Your task to perform on an android device: change the clock display to analog Image 0: 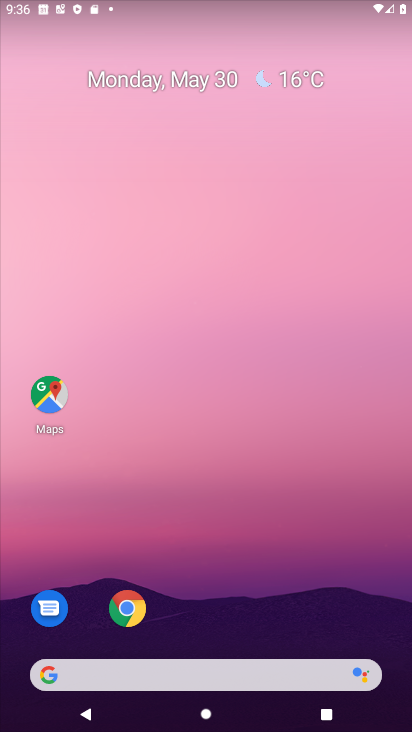
Step 0: drag from (401, 669) to (368, 149)
Your task to perform on an android device: change the clock display to analog Image 1: 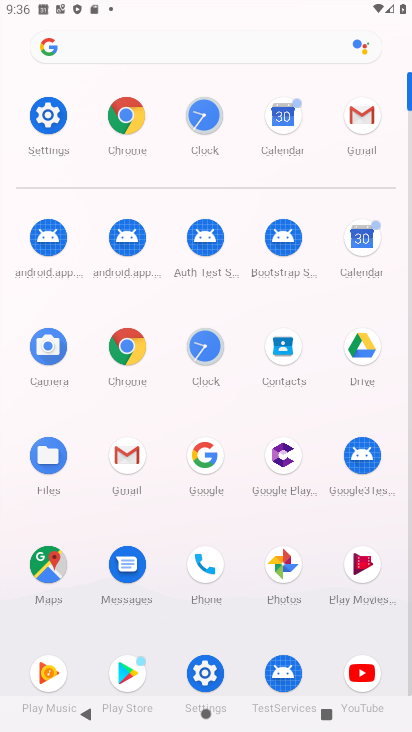
Step 1: click (39, 118)
Your task to perform on an android device: change the clock display to analog Image 2: 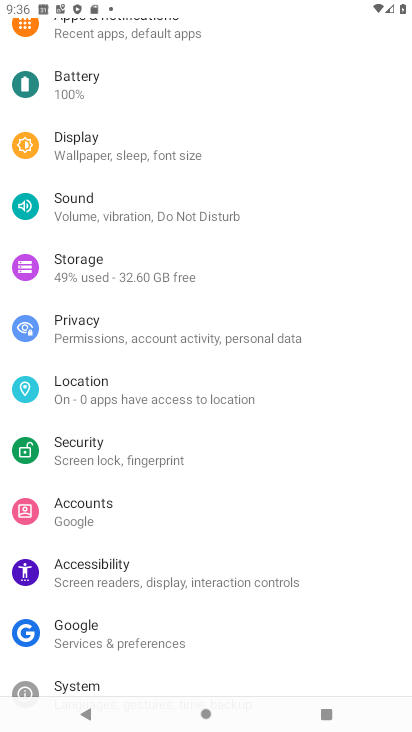
Step 2: click (84, 150)
Your task to perform on an android device: change the clock display to analog Image 3: 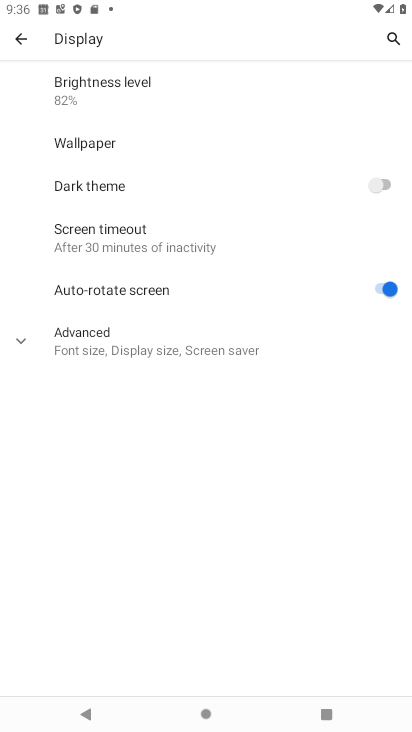
Step 3: press home button
Your task to perform on an android device: change the clock display to analog Image 4: 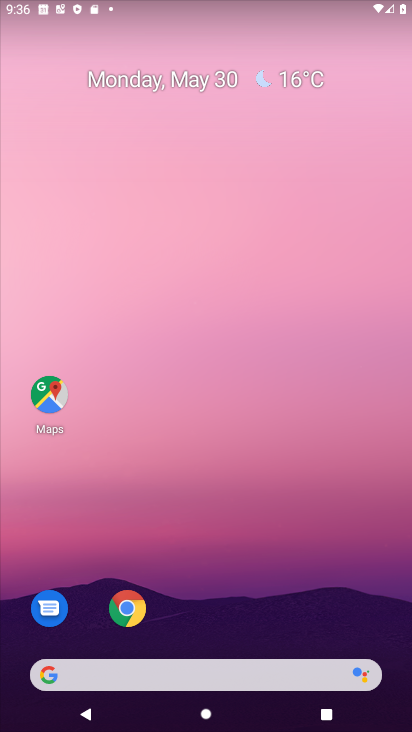
Step 4: drag from (389, 662) to (361, 85)
Your task to perform on an android device: change the clock display to analog Image 5: 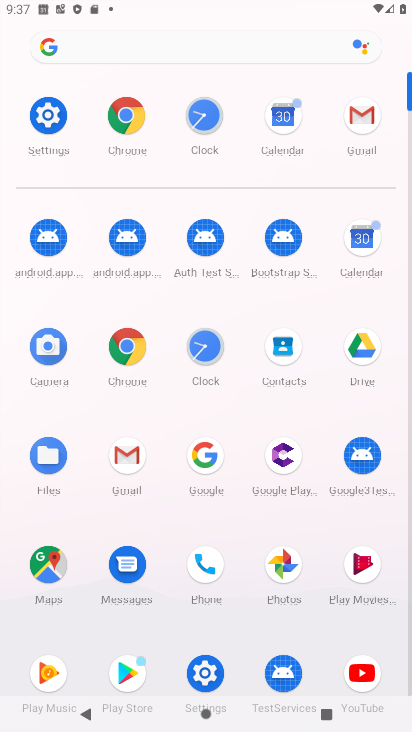
Step 5: click (204, 347)
Your task to perform on an android device: change the clock display to analog Image 6: 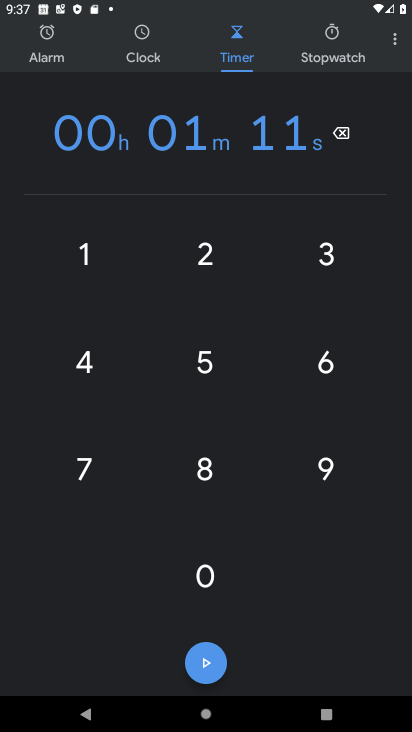
Step 6: click (392, 36)
Your task to perform on an android device: change the clock display to analog Image 7: 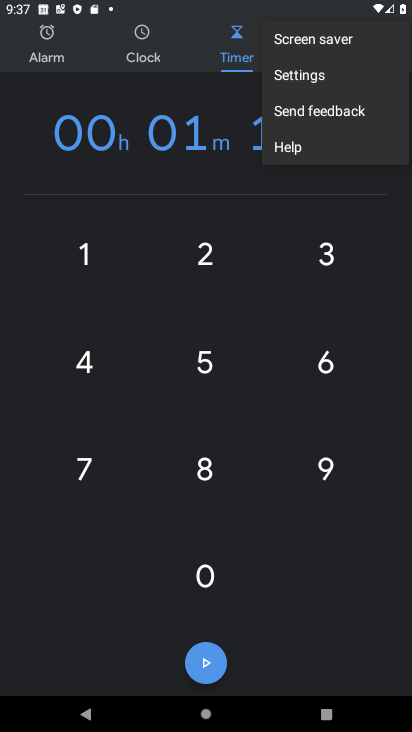
Step 7: click (301, 78)
Your task to perform on an android device: change the clock display to analog Image 8: 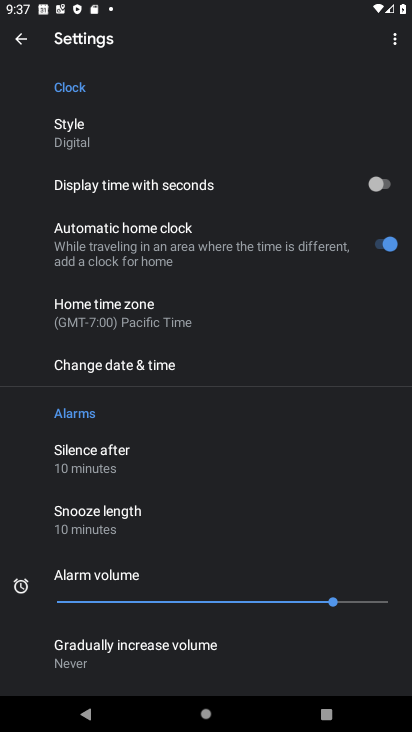
Step 8: click (60, 130)
Your task to perform on an android device: change the clock display to analog Image 9: 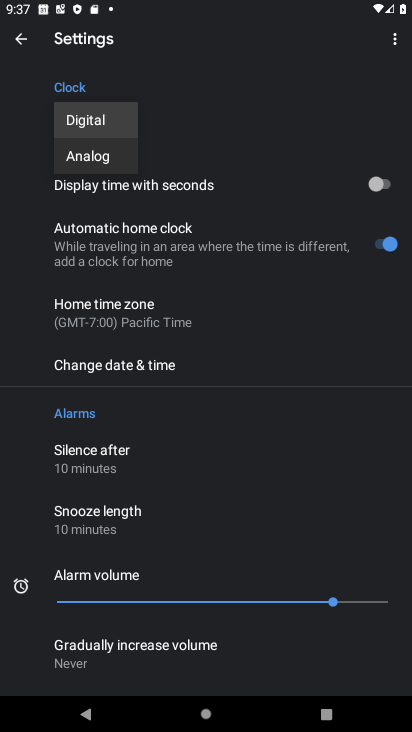
Step 9: click (104, 151)
Your task to perform on an android device: change the clock display to analog Image 10: 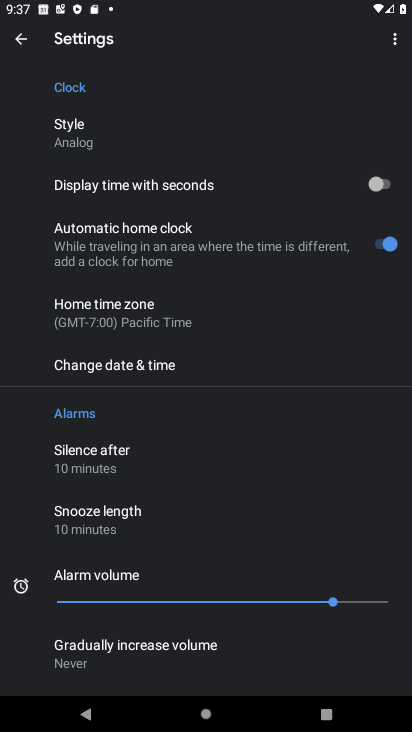
Step 10: task complete